Your task to perform on an android device: Is it going to rain this weekend? Image 0: 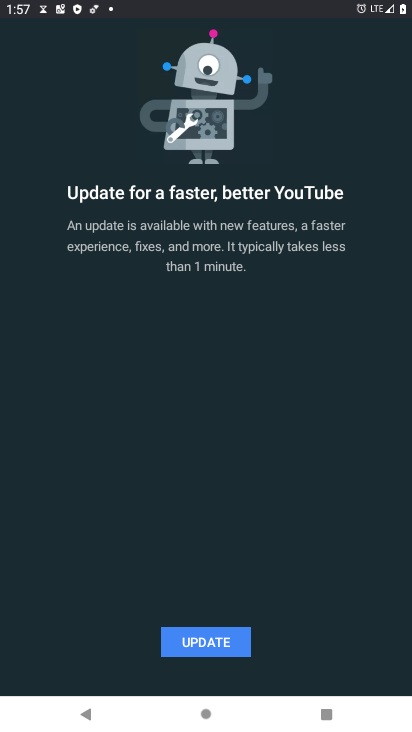
Step 0: press home button
Your task to perform on an android device: Is it going to rain this weekend? Image 1: 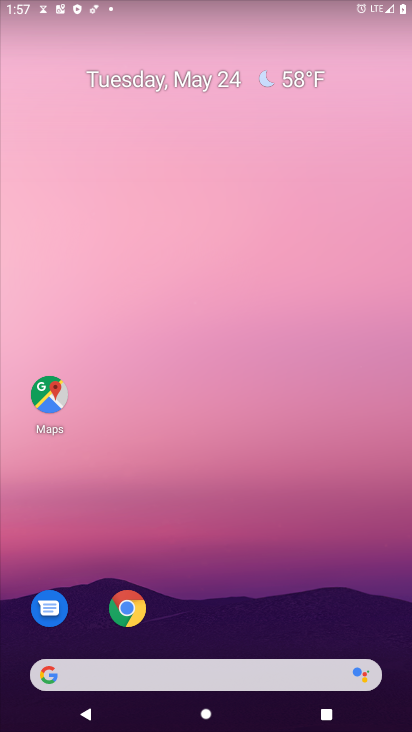
Step 1: drag from (266, 665) to (94, 69)
Your task to perform on an android device: Is it going to rain this weekend? Image 2: 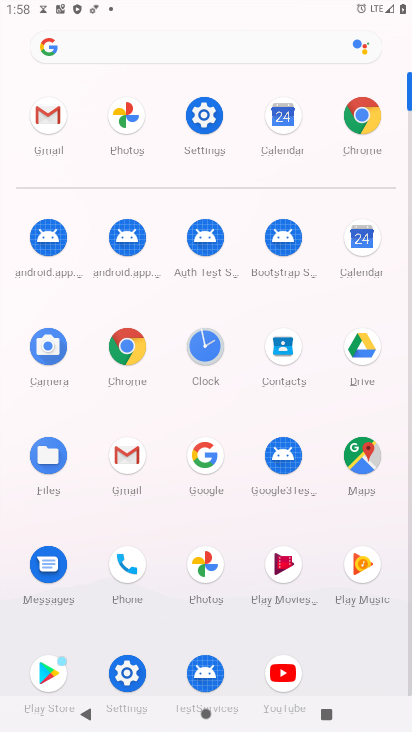
Step 2: click (108, 49)
Your task to perform on an android device: Is it going to rain this weekend? Image 3: 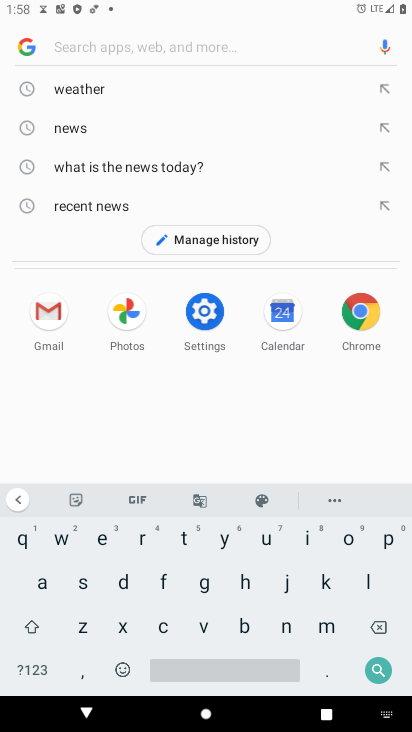
Step 3: click (99, 97)
Your task to perform on an android device: Is it going to rain this weekend? Image 4: 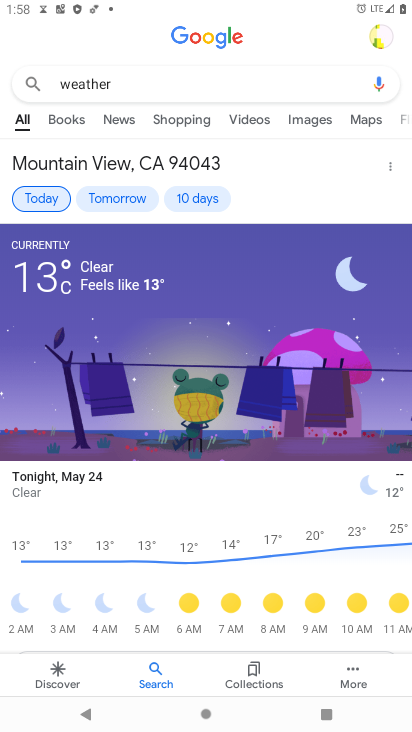
Step 4: click (201, 201)
Your task to perform on an android device: Is it going to rain this weekend? Image 5: 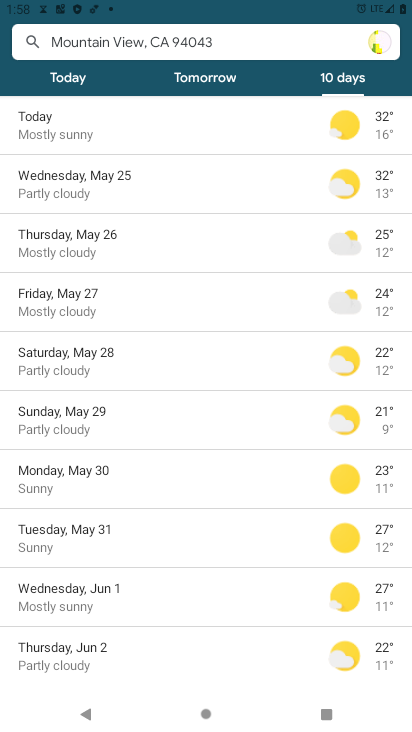
Step 5: task complete